Your task to perform on an android device: Open privacy settings Image 0: 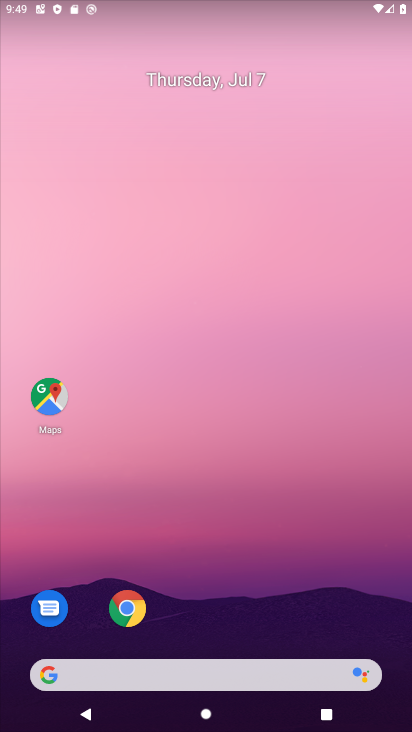
Step 0: drag from (246, 625) to (252, 62)
Your task to perform on an android device: Open privacy settings Image 1: 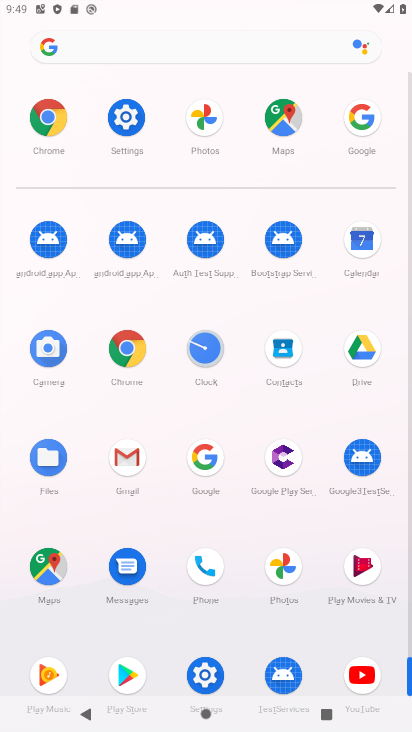
Step 1: click (210, 671)
Your task to perform on an android device: Open privacy settings Image 2: 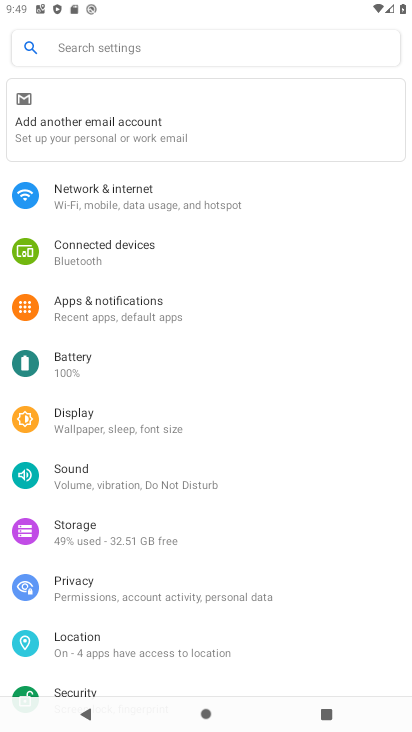
Step 2: click (118, 578)
Your task to perform on an android device: Open privacy settings Image 3: 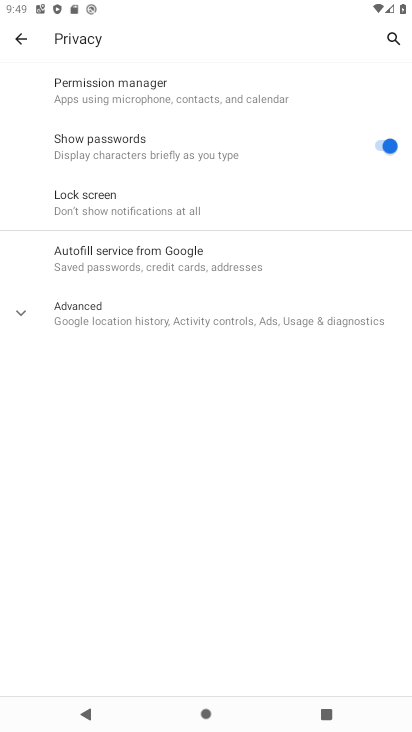
Step 3: task complete